Your task to perform on an android device: Go to Yahoo.com Image 0: 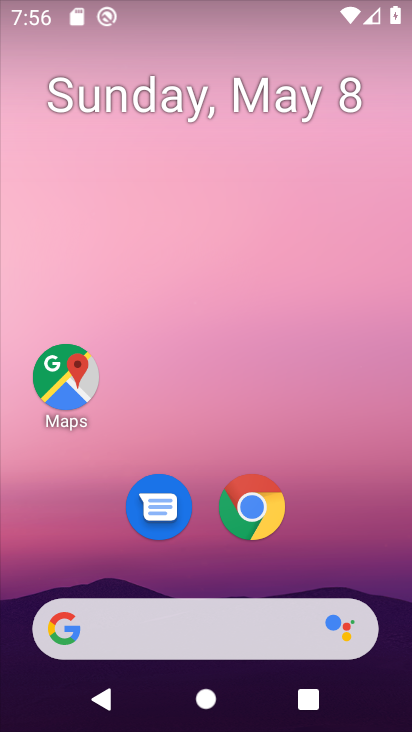
Step 0: click (238, 521)
Your task to perform on an android device: Go to Yahoo.com Image 1: 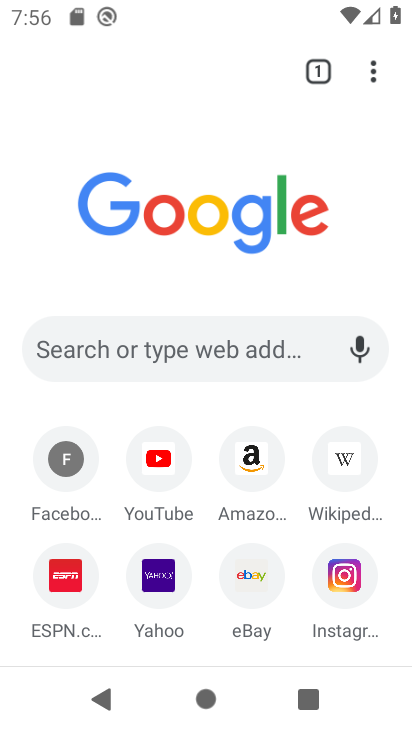
Step 1: click (146, 588)
Your task to perform on an android device: Go to Yahoo.com Image 2: 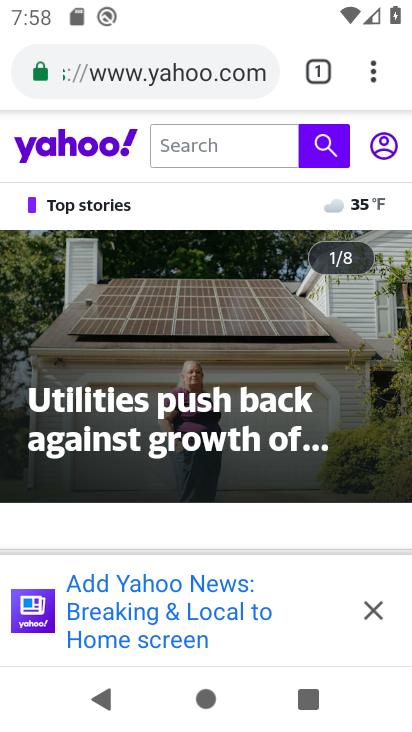
Step 2: task complete